Your task to perform on an android device: Open the web browser Image 0: 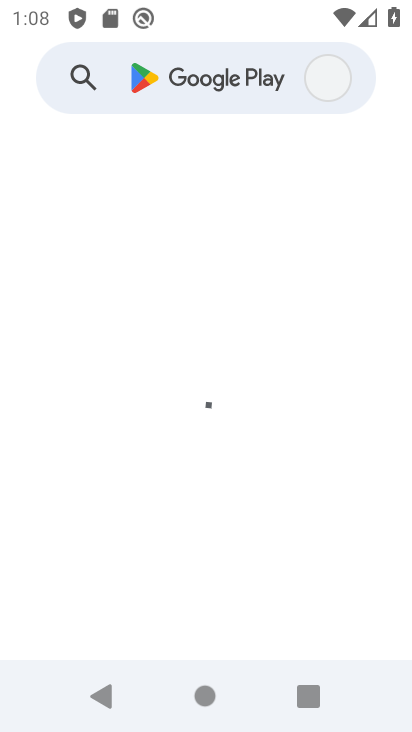
Step 0: press back button
Your task to perform on an android device: Open the web browser Image 1: 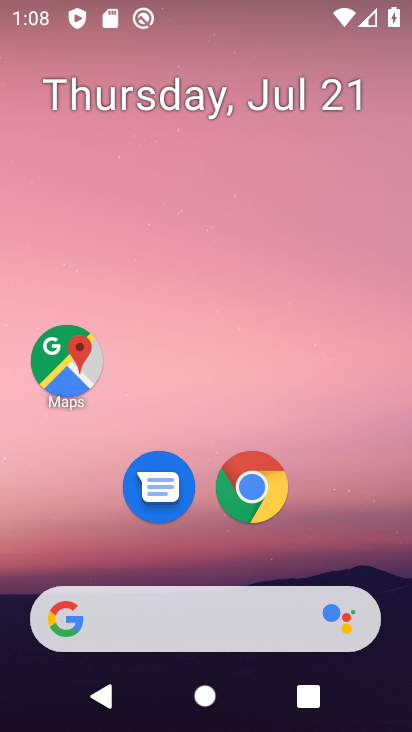
Step 1: click (261, 484)
Your task to perform on an android device: Open the web browser Image 2: 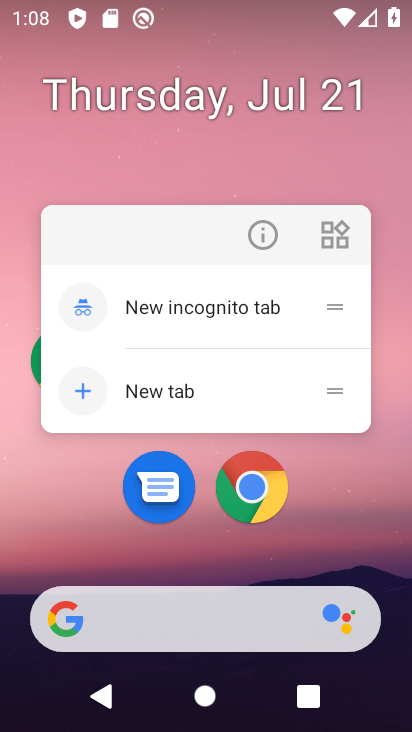
Step 2: click (251, 485)
Your task to perform on an android device: Open the web browser Image 3: 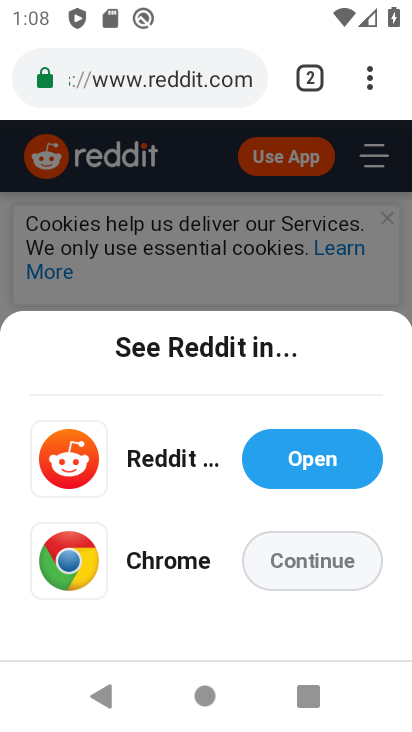
Step 3: task complete